Your task to perform on an android device: remove spam from my inbox in the gmail app Image 0: 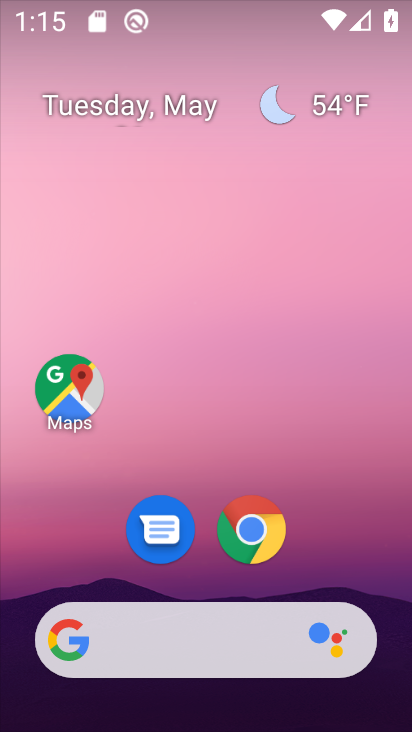
Step 0: drag from (307, 570) to (320, 211)
Your task to perform on an android device: remove spam from my inbox in the gmail app Image 1: 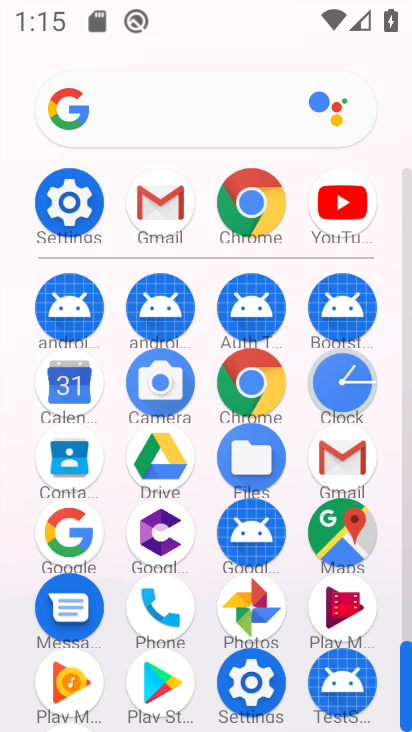
Step 1: click (343, 449)
Your task to perform on an android device: remove spam from my inbox in the gmail app Image 2: 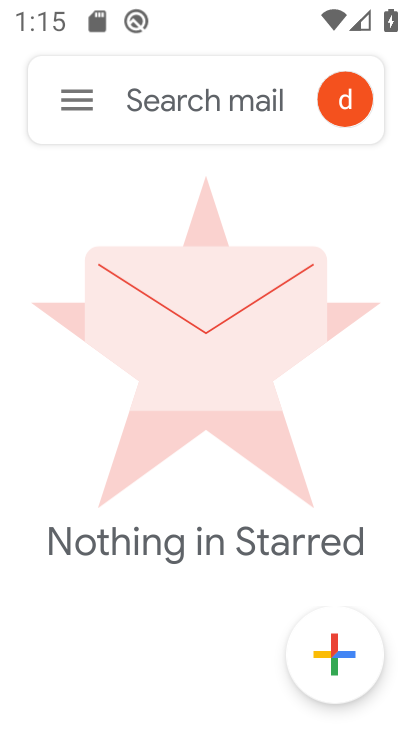
Step 2: click (60, 88)
Your task to perform on an android device: remove spam from my inbox in the gmail app Image 3: 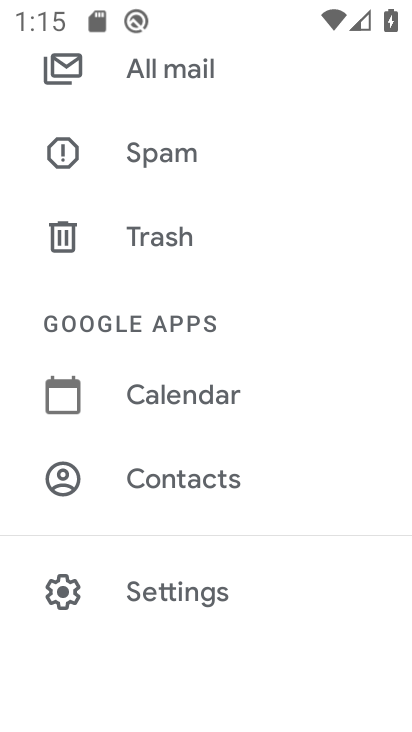
Step 3: drag from (130, 86) to (132, 215)
Your task to perform on an android device: remove spam from my inbox in the gmail app Image 4: 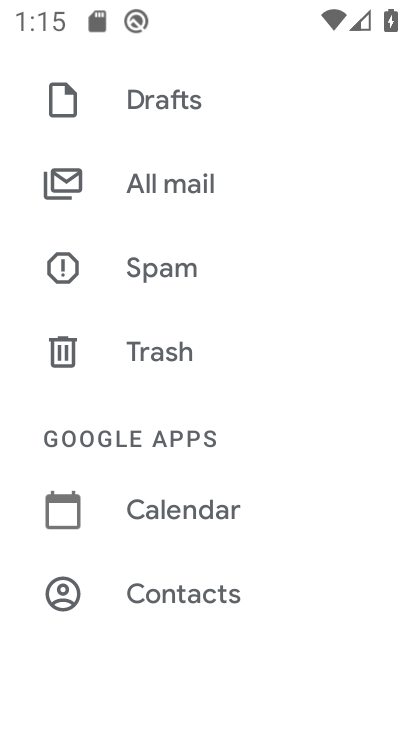
Step 4: click (153, 280)
Your task to perform on an android device: remove spam from my inbox in the gmail app Image 5: 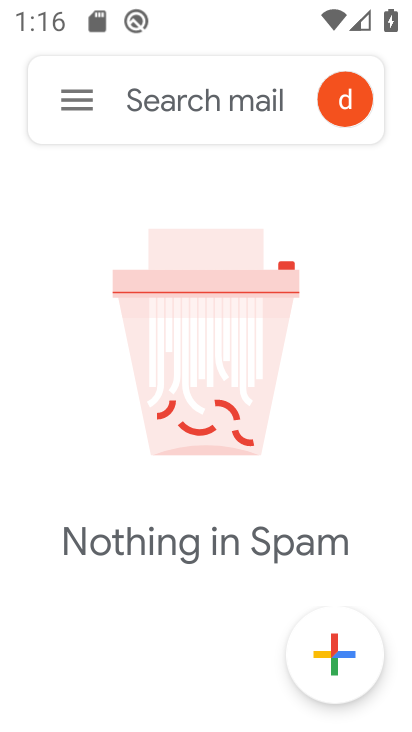
Step 5: task complete